Your task to perform on an android device: toggle translation in the chrome app Image 0: 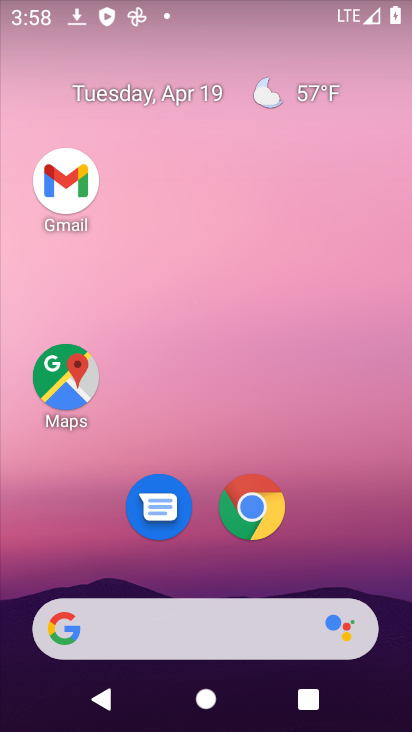
Step 0: click (258, 512)
Your task to perform on an android device: toggle translation in the chrome app Image 1: 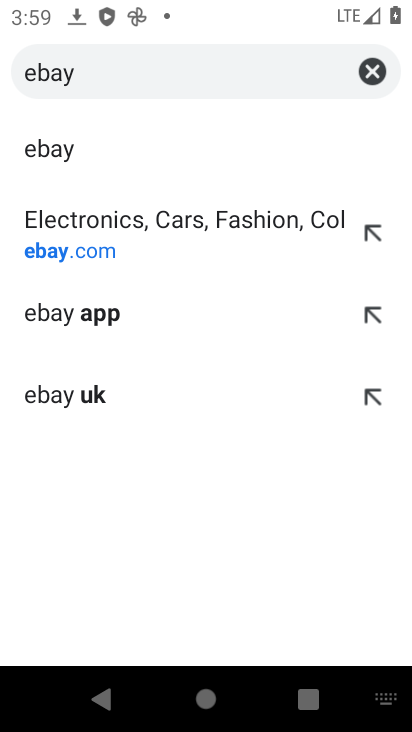
Step 1: click (368, 77)
Your task to perform on an android device: toggle translation in the chrome app Image 2: 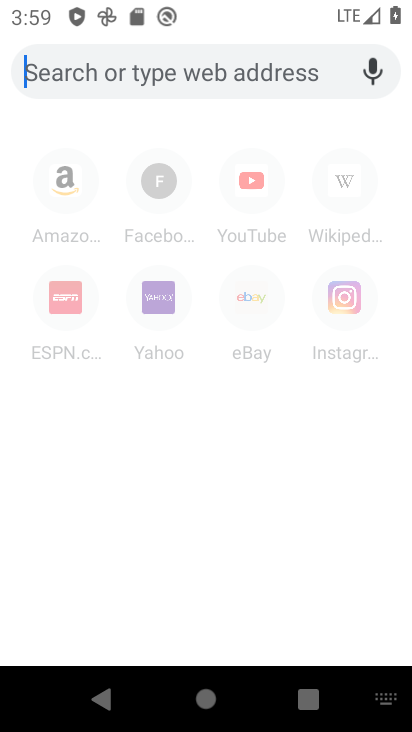
Step 2: press back button
Your task to perform on an android device: toggle translation in the chrome app Image 3: 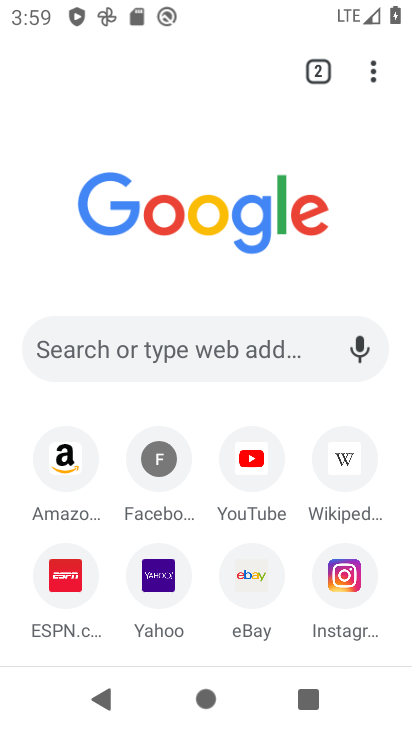
Step 3: click (368, 65)
Your task to perform on an android device: toggle translation in the chrome app Image 4: 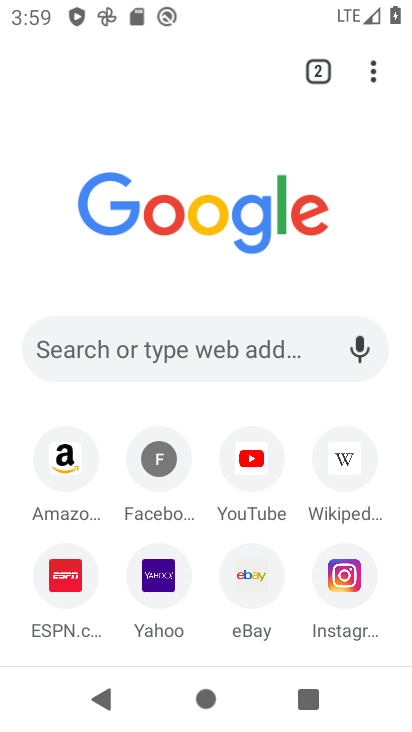
Step 4: click (382, 83)
Your task to perform on an android device: toggle translation in the chrome app Image 5: 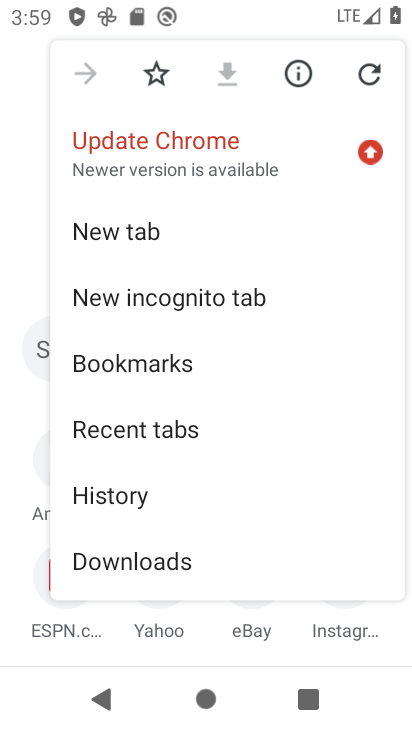
Step 5: drag from (270, 495) to (325, 93)
Your task to perform on an android device: toggle translation in the chrome app Image 6: 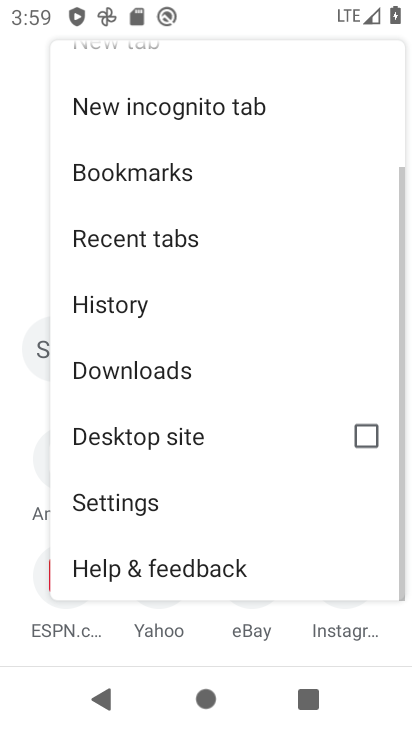
Step 6: click (119, 501)
Your task to perform on an android device: toggle translation in the chrome app Image 7: 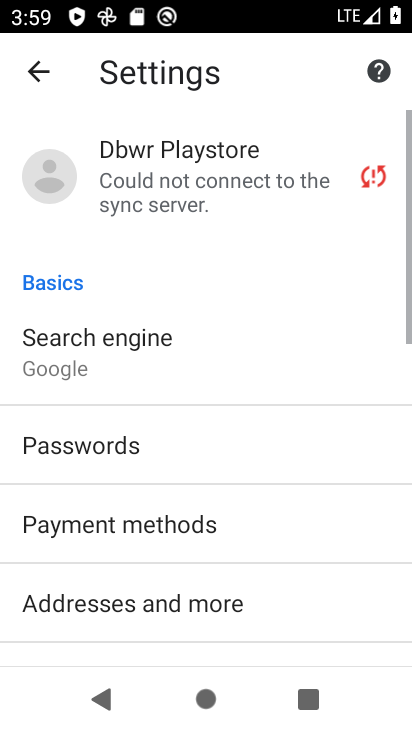
Step 7: drag from (165, 540) to (259, 95)
Your task to perform on an android device: toggle translation in the chrome app Image 8: 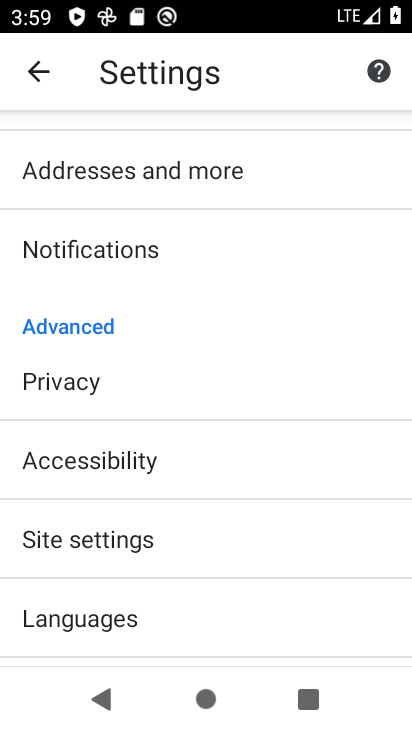
Step 8: click (190, 602)
Your task to perform on an android device: toggle translation in the chrome app Image 9: 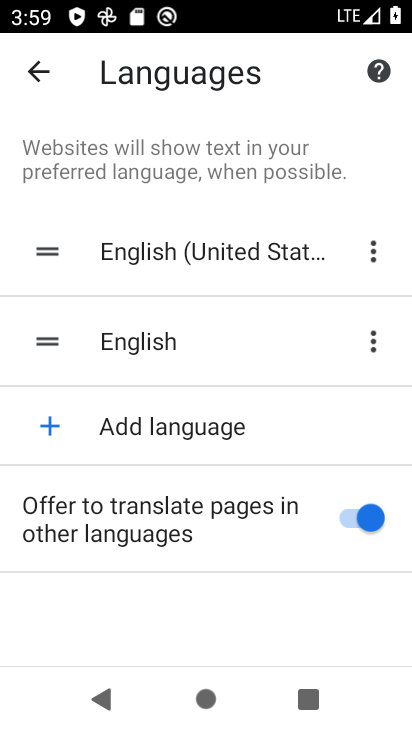
Step 9: click (360, 524)
Your task to perform on an android device: toggle translation in the chrome app Image 10: 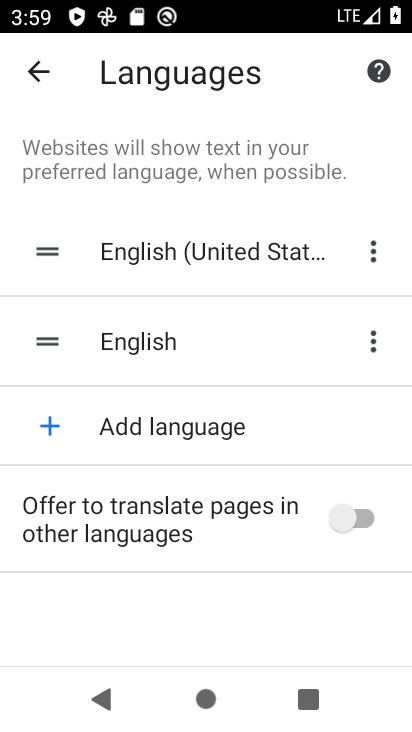
Step 10: task complete